Your task to perform on an android device: Go to battery settings Image 0: 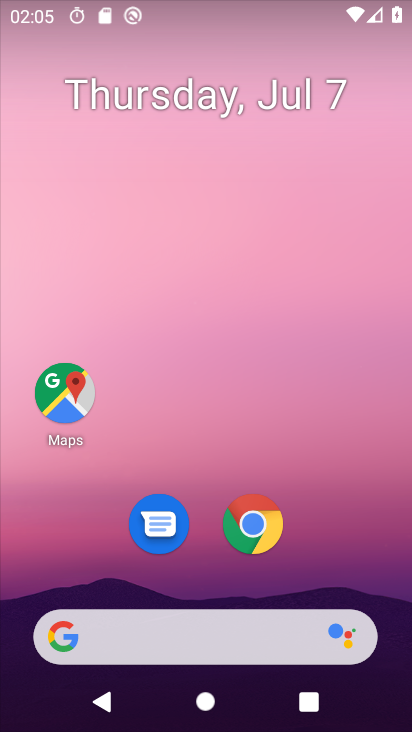
Step 0: drag from (219, 458) to (235, 25)
Your task to perform on an android device: Go to battery settings Image 1: 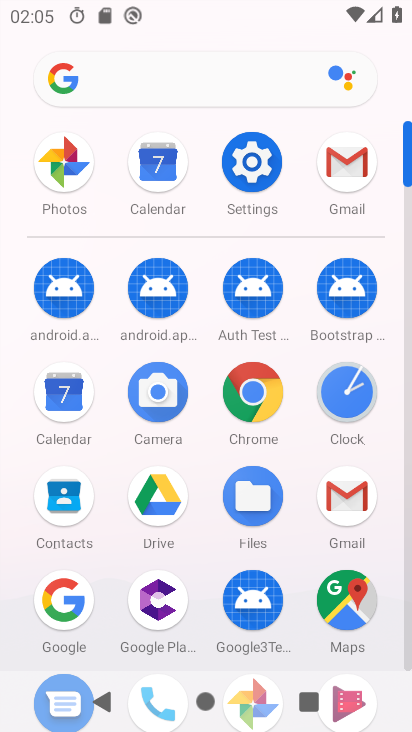
Step 1: click (346, 159)
Your task to perform on an android device: Go to battery settings Image 2: 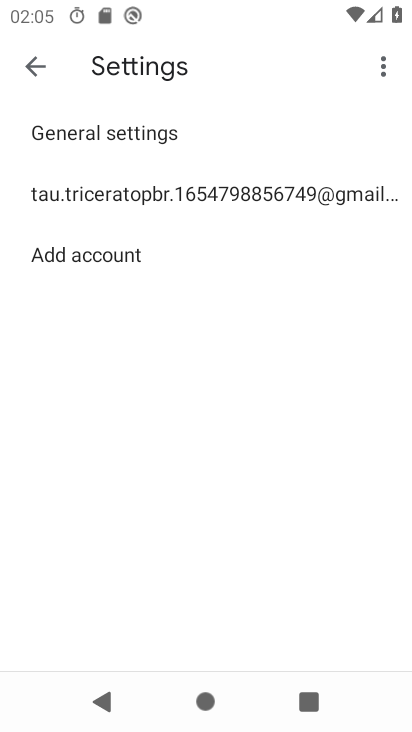
Step 2: click (39, 67)
Your task to perform on an android device: Go to battery settings Image 3: 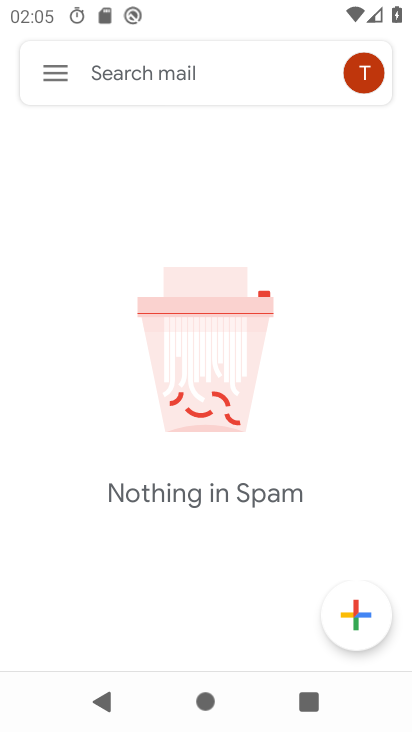
Step 3: click (52, 69)
Your task to perform on an android device: Go to battery settings Image 4: 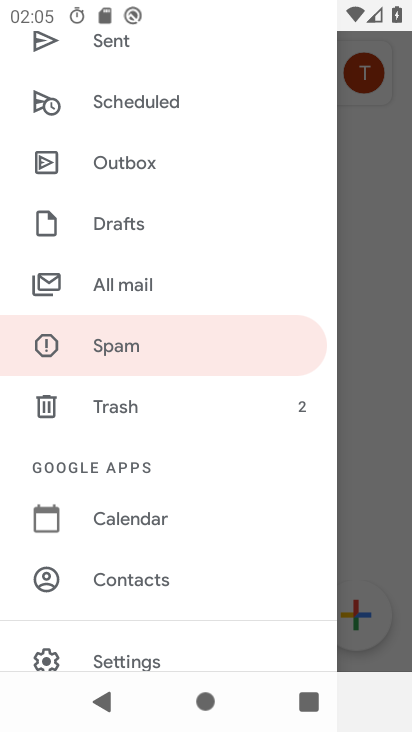
Step 4: drag from (191, 223) to (204, 624)
Your task to perform on an android device: Go to battery settings Image 5: 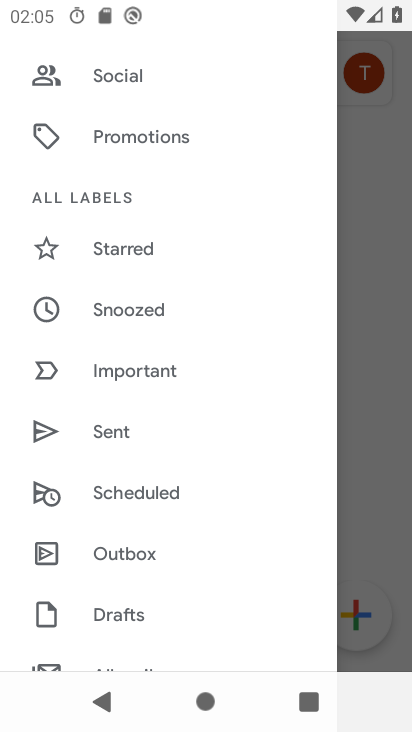
Step 5: click (143, 308)
Your task to perform on an android device: Go to battery settings Image 6: 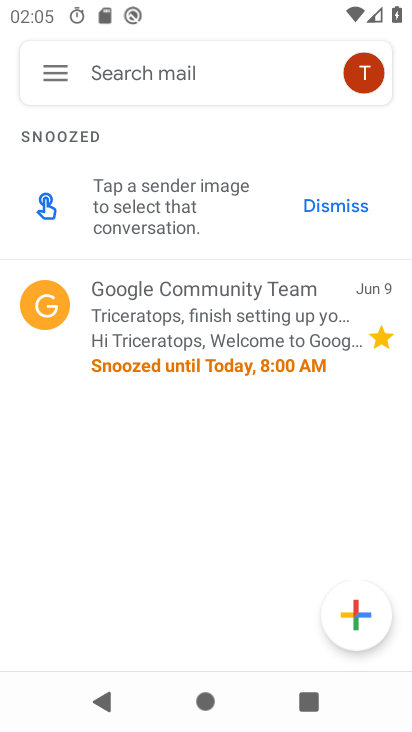
Step 6: task complete